Your task to perform on an android device: Open wifi settings Image 0: 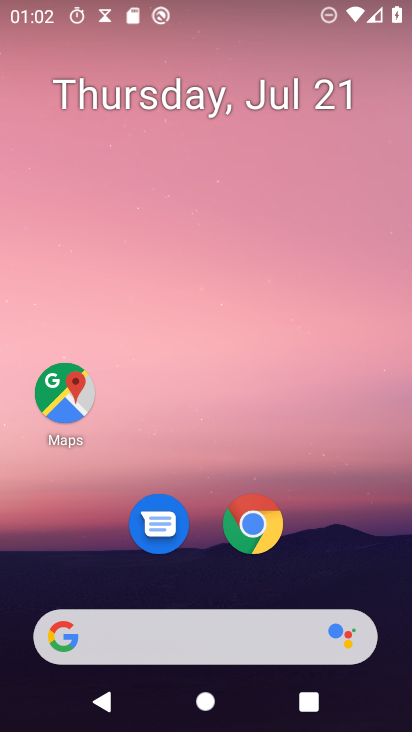
Step 0: drag from (183, 606) to (358, 1)
Your task to perform on an android device: Open wifi settings Image 1: 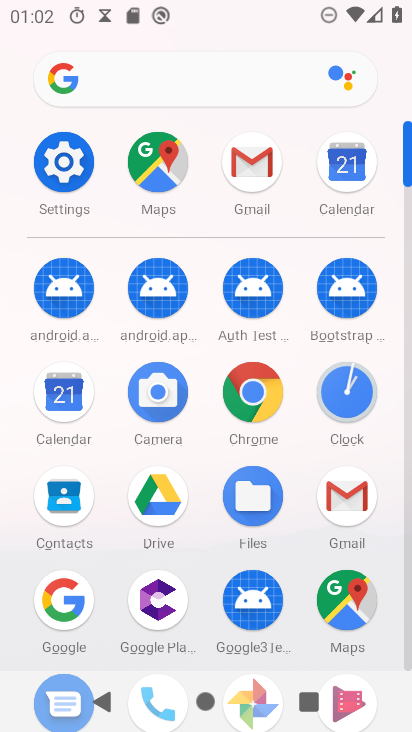
Step 1: click (69, 150)
Your task to perform on an android device: Open wifi settings Image 2: 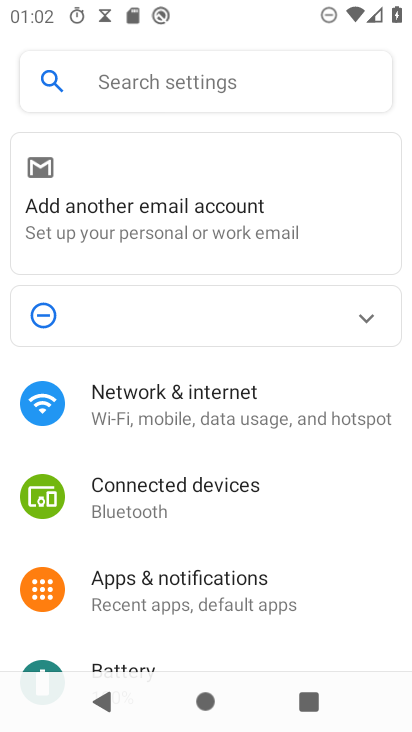
Step 2: click (126, 399)
Your task to perform on an android device: Open wifi settings Image 3: 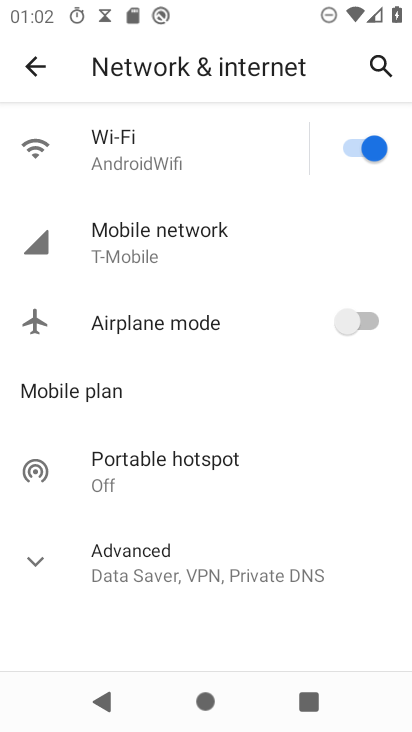
Step 3: click (121, 153)
Your task to perform on an android device: Open wifi settings Image 4: 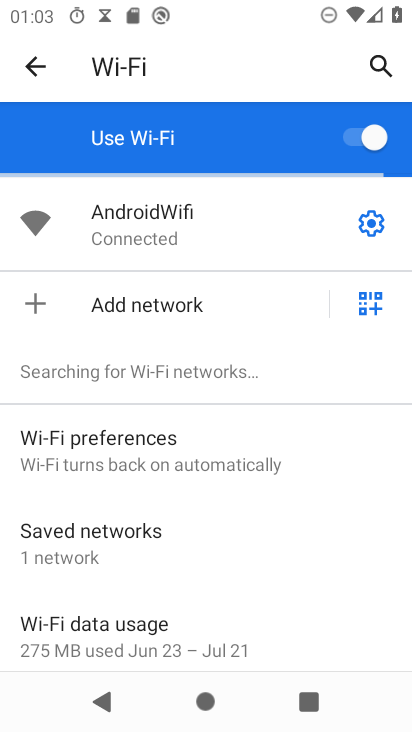
Step 4: task complete